Your task to perform on an android device: uninstall "Gmail" Image 0: 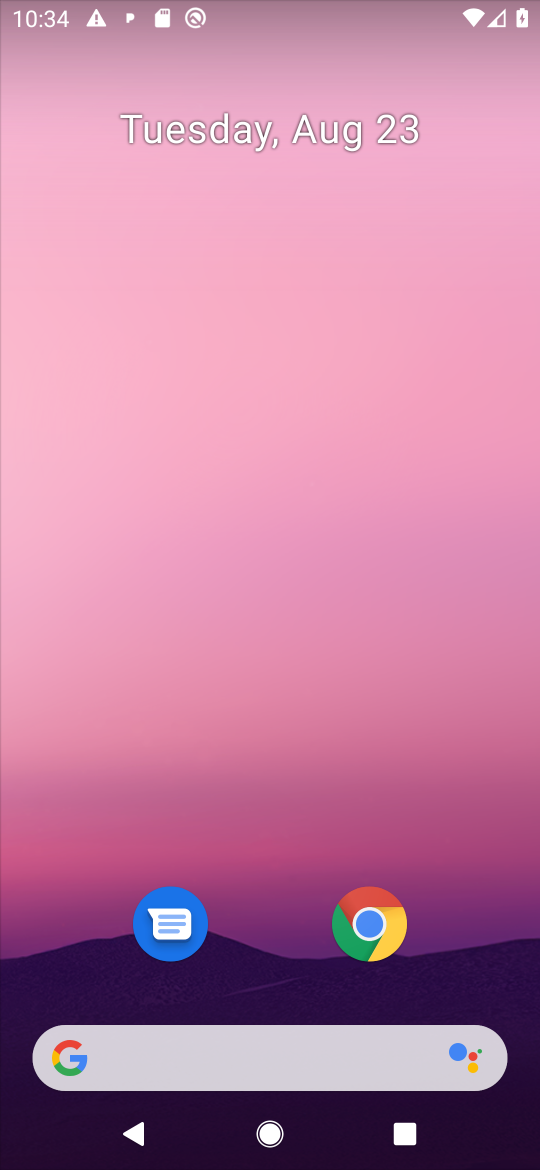
Step 0: press home button
Your task to perform on an android device: uninstall "Gmail" Image 1: 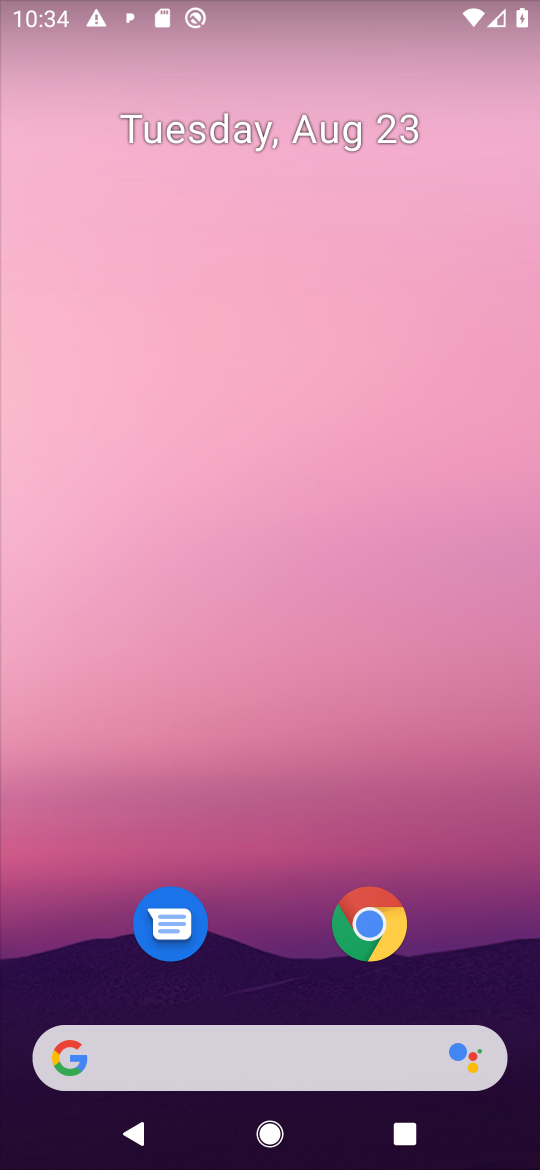
Step 1: drag from (485, 934) to (466, 115)
Your task to perform on an android device: uninstall "Gmail" Image 2: 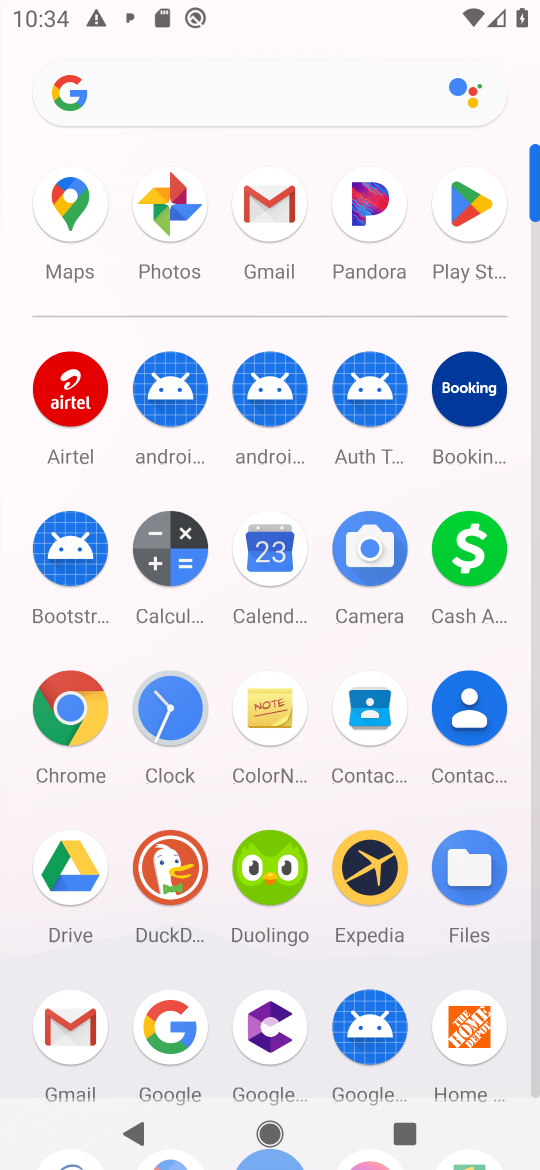
Step 2: click (466, 193)
Your task to perform on an android device: uninstall "Gmail" Image 3: 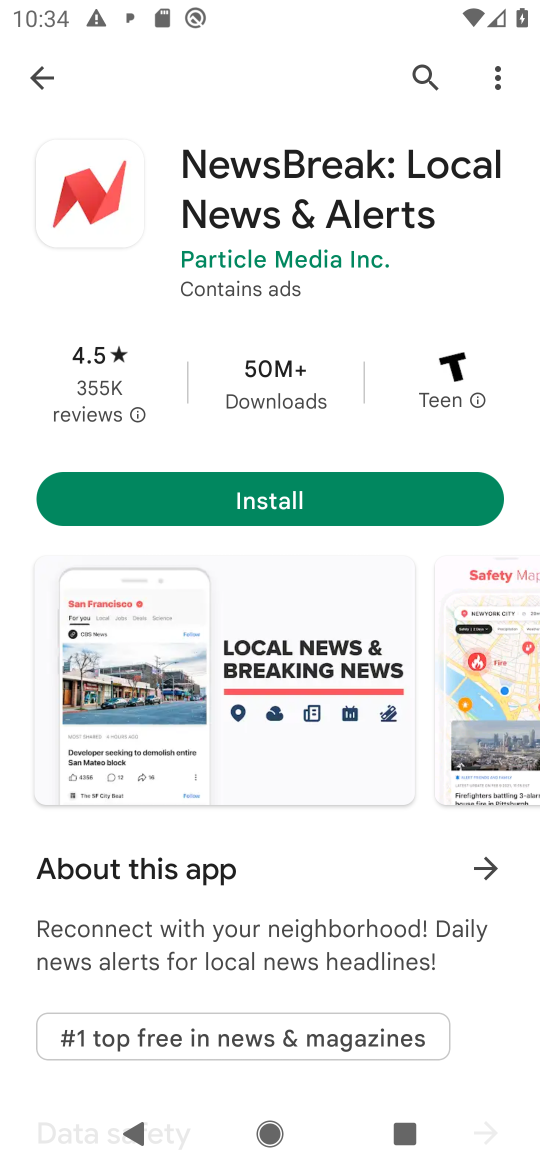
Step 3: press back button
Your task to perform on an android device: uninstall "Gmail" Image 4: 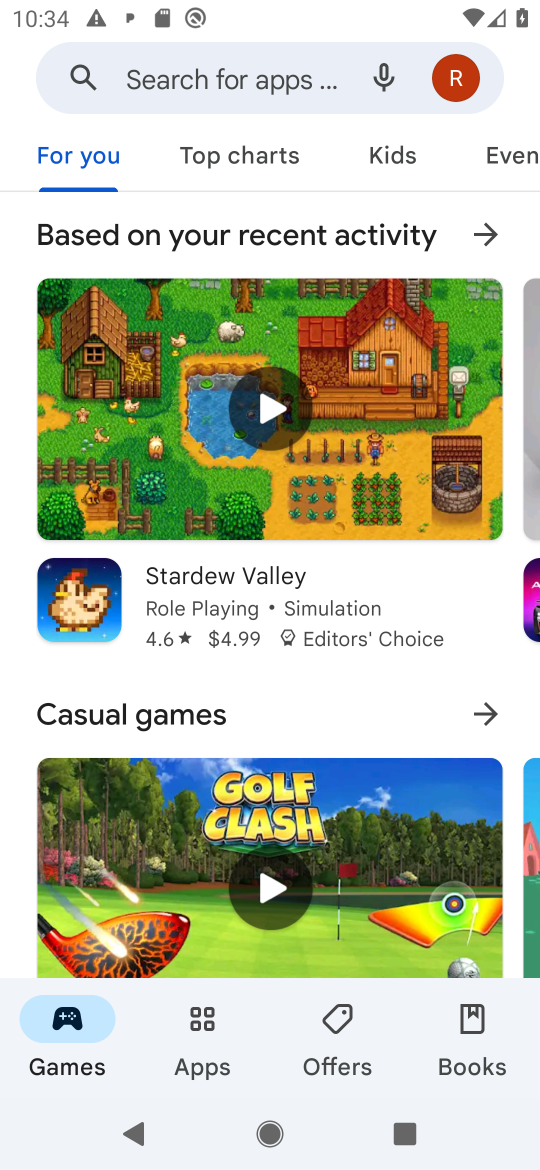
Step 4: click (240, 56)
Your task to perform on an android device: uninstall "Gmail" Image 5: 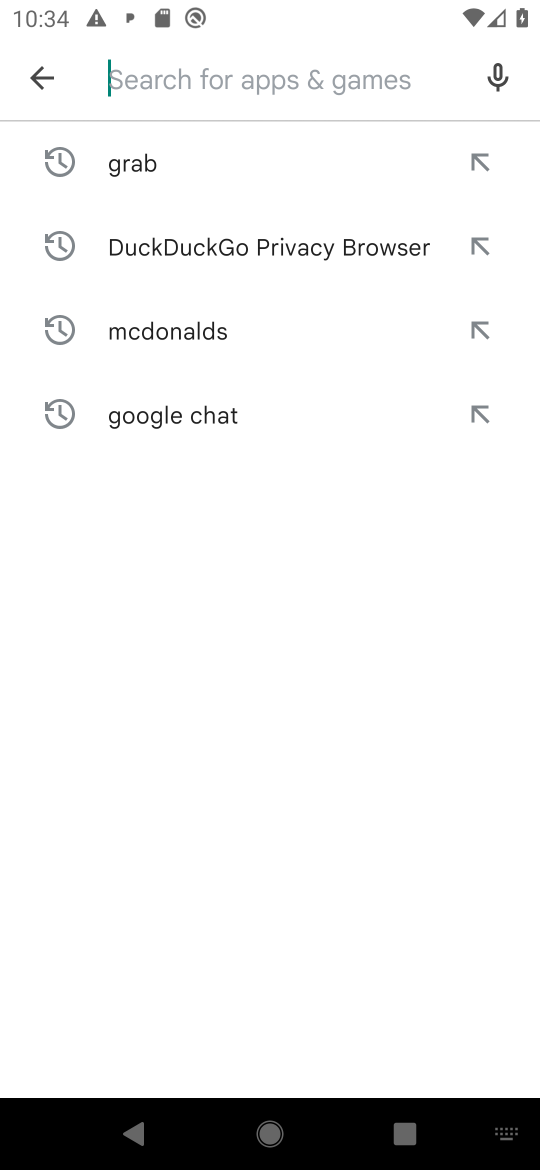
Step 5: press enter
Your task to perform on an android device: uninstall "Gmail" Image 6: 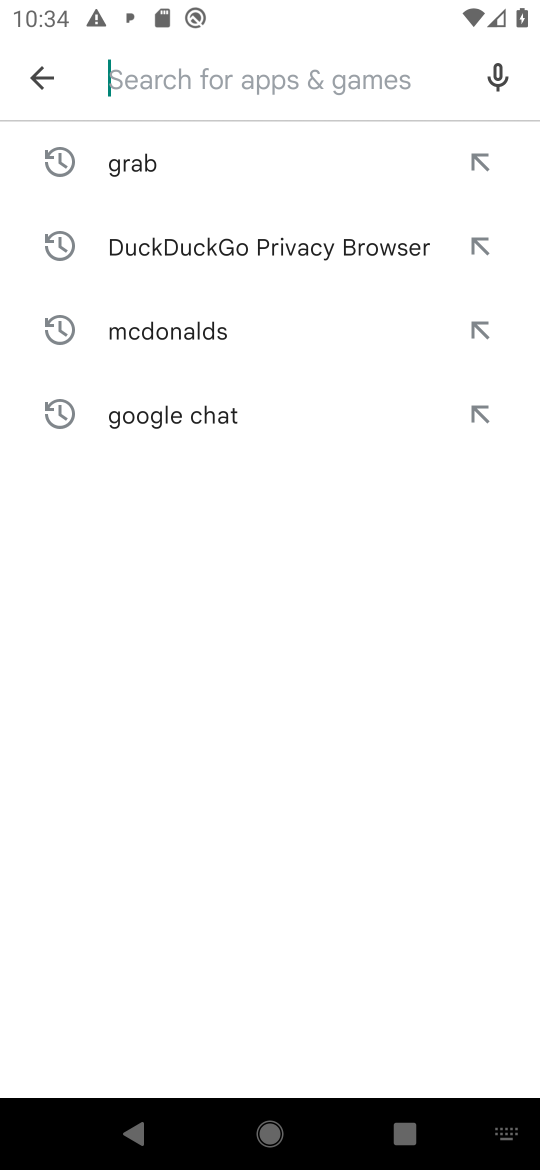
Step 6: type "gmail"
Your task to perform on an android device: uninstall "Gmail" Image 7: 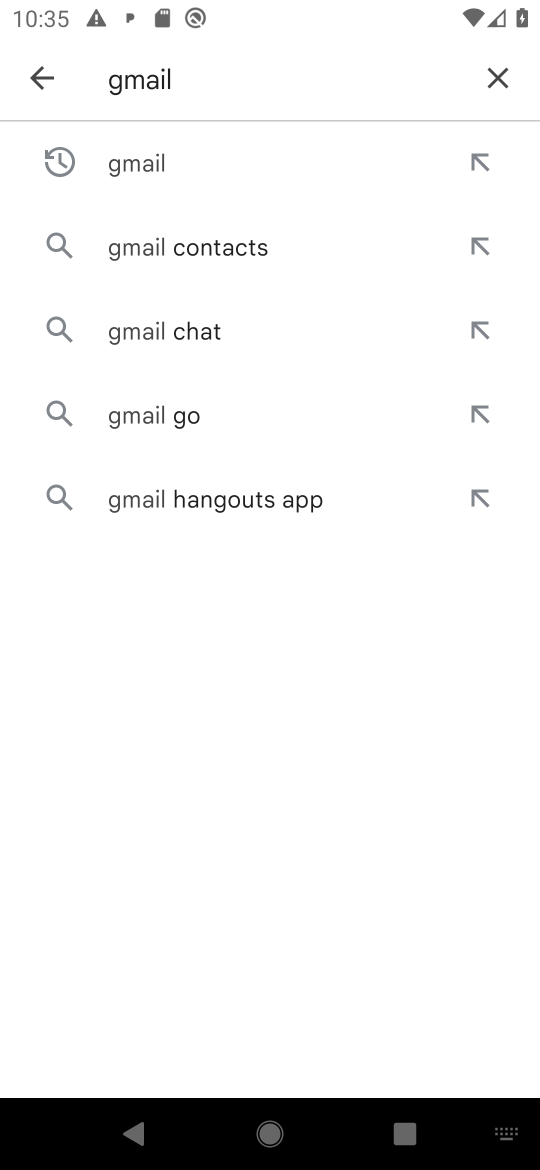
Step 7: click (177, 158)
Your task to perform on an android device: uninstall "Gmail" Image 8: 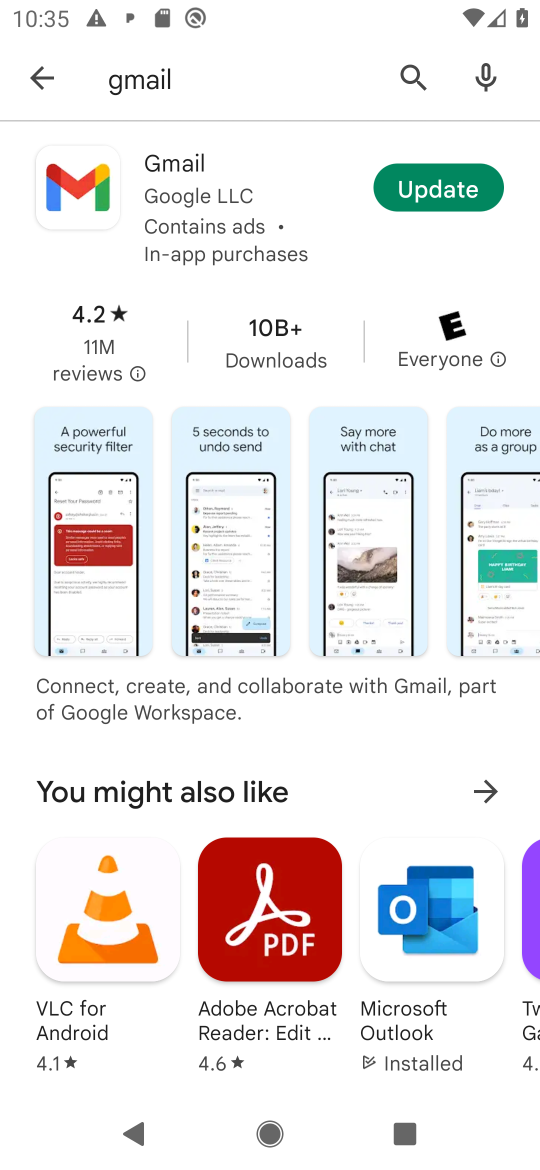
Step 8: task complete